Your task to perform on an android device: change the clock display to show seconds Image 0: 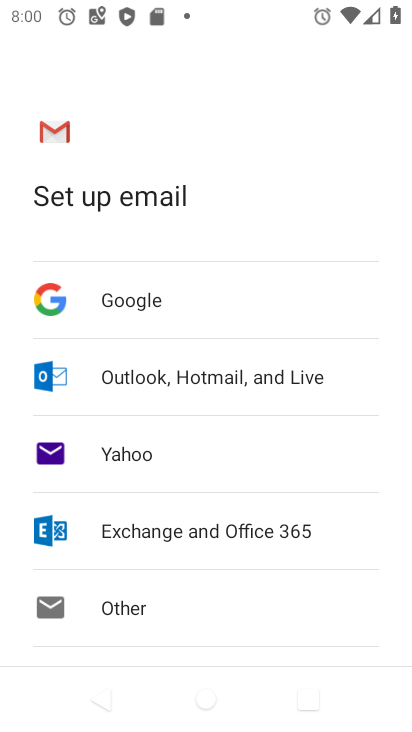
Step 0: press home button
Your task to perform on an android device: change the clock display to show seconds Image 1: 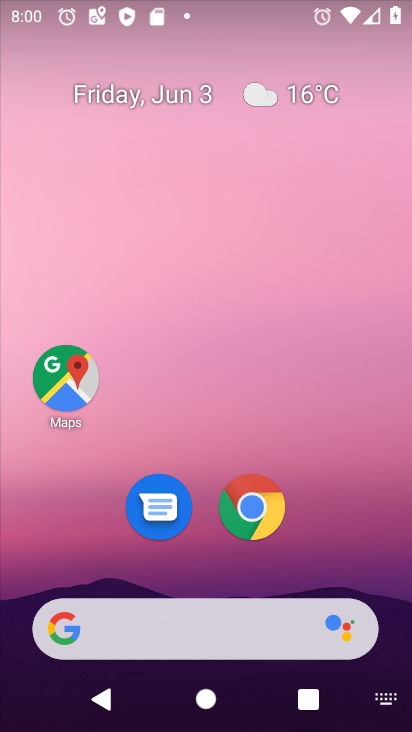
Step 1: drag from (206, 20) to (79, 12)
Your task to perform on an android device: change the clock display to show seconds Image 2: 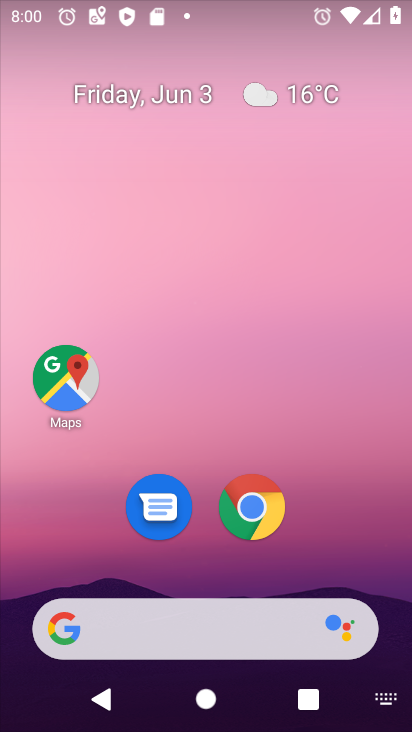
Step 2: drag from (252, 562) to (131, 10)
Your task to perform on an android device: change the clock display to show seconds Image 3: 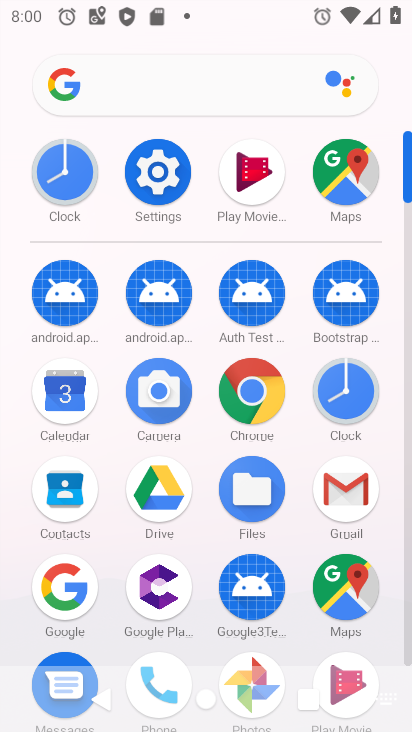
Step 3: click (62, 181)
Your task to perform on an android device: change the clock display to show seconds Image 4: 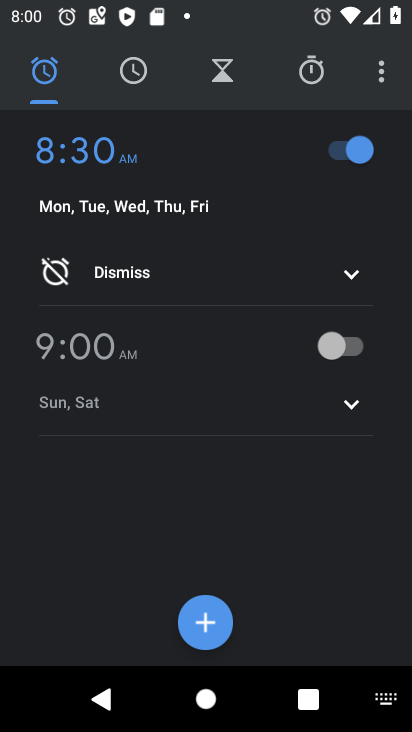
Step 4: click (386, 76)
Your task to perform on an android device: change the clock display to show seconds Image 5: 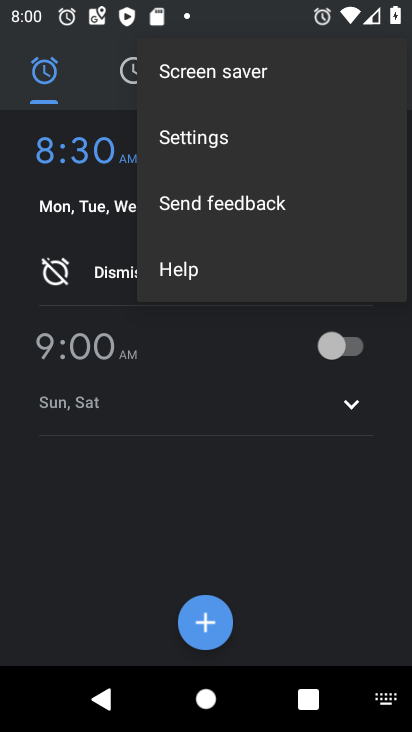
Step 5: click (215, 141)
Your task to perform on an android device: change the clock display to show seconds Image 6: 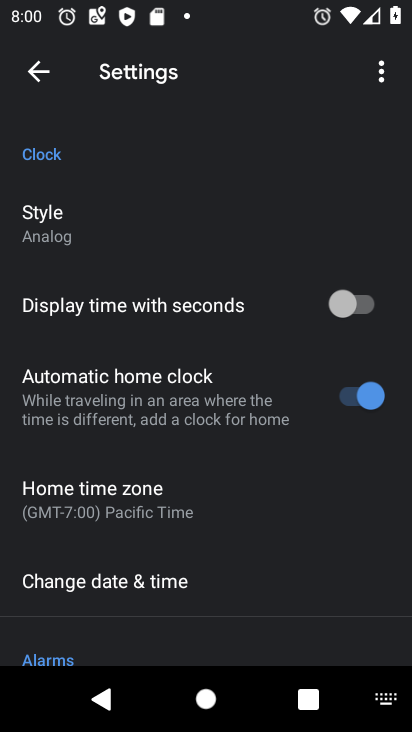
Step 6: click (351, 310)
Your task to perform on an android device: change the clock display to show seconds Image 7: 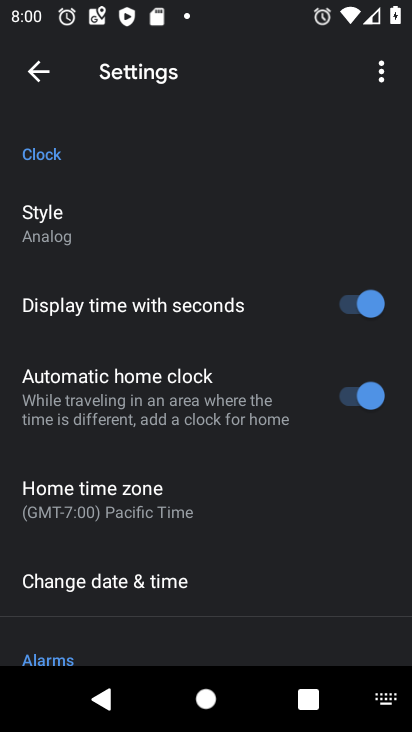
Step 7: task complete